Your task to perform on an android device: Go to Maps Image 0: 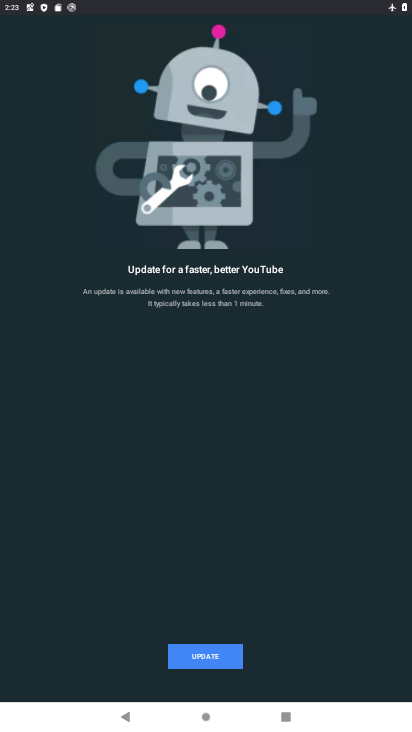
Step 0: press home button
Your task to perform on an android device: Go to Maps Image 1: 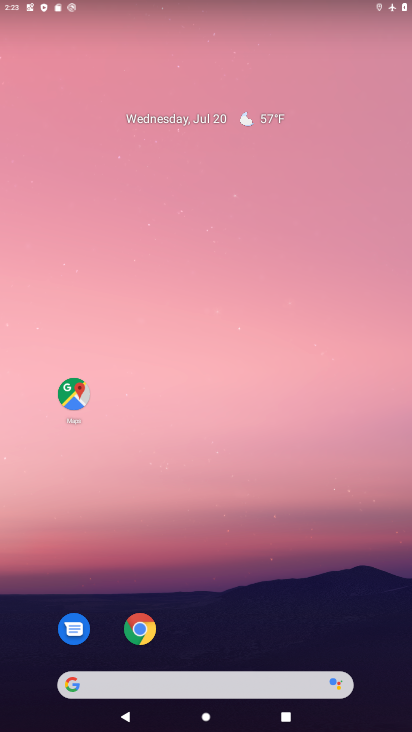
Step 1: click (60, 399)
Your task to perform on an android device: Go to Maps Image 2: 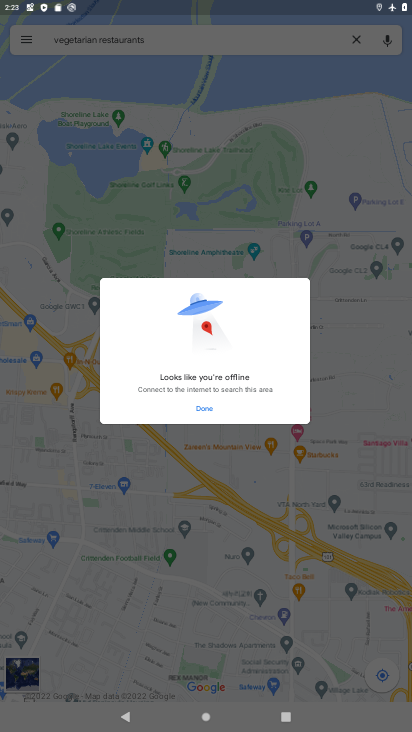
Step 2: task complete